Your task to perform on an android device: choose inbox layout in the gmail app Image 0: 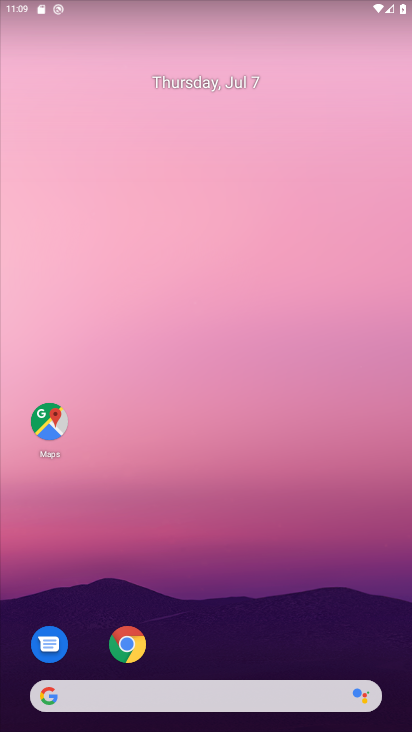
Step 0: click (185, 659)
Your task to perform on an android device: choose inbox layout in the gmail app Image 1: 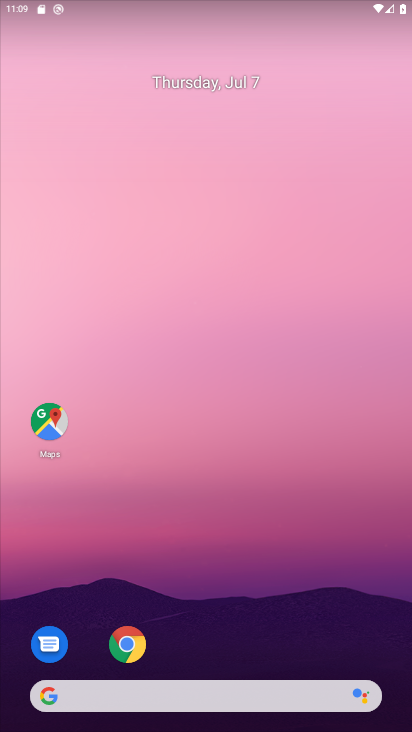
Step 1: click (127, 188)
Your task to perform on an android device: choose inbox layout in the gmail app Image 2: 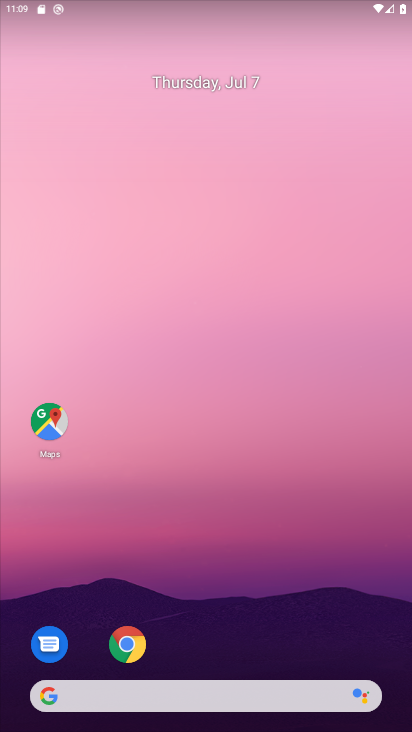
Step 2: drag from (245, 727) to (238, 174)
Your task to perform on an android device: choose inbox layout in the gmail app Image 3: 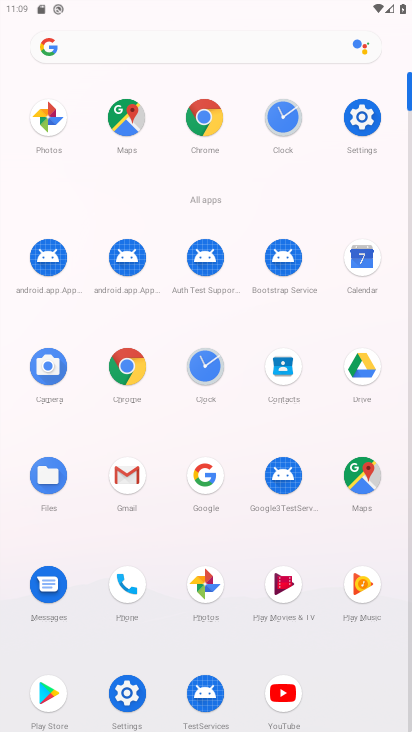
Step 3: click (132, 474)
Your task to perform on an android device: choose inbox layout in the gmail app Image 4: 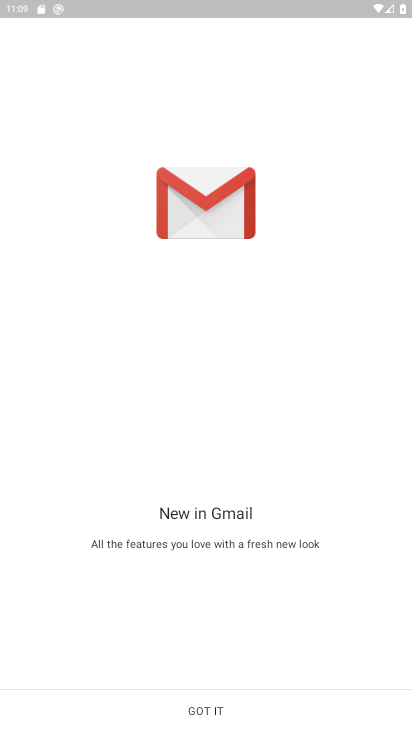
Step 4: click (212, 702)
Your task to perform on an android device: choose inbox layout in the gmail app Image 5: 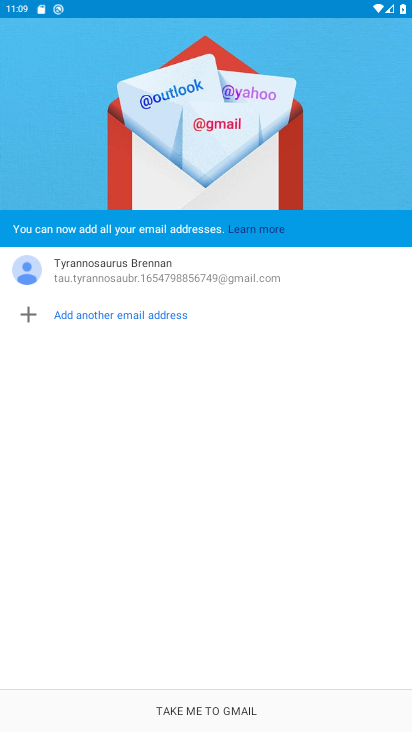
Step 5: click (210, 707)
Your task to perform on an android device: choose inbox layout in the gmail app Image 6: 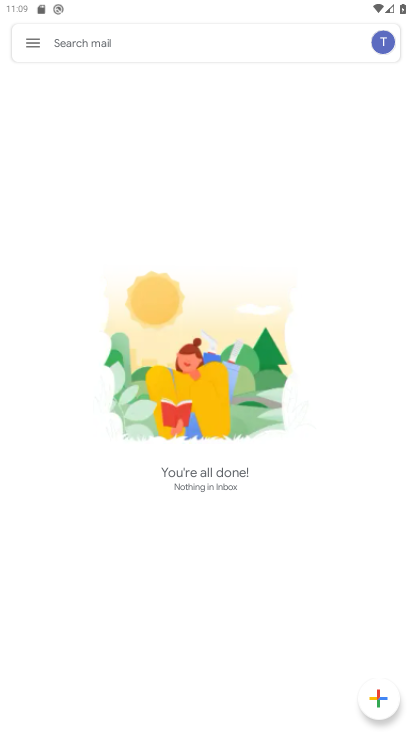
Step 6: click (31, 38)
Your task to perform on an android device: choose inbox layout in the gmail app Image 7: 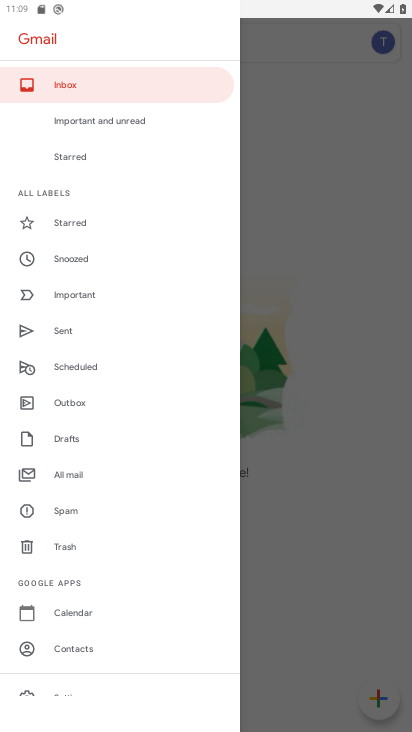
Step 7: drag from (94, 653) to (93, 412)
Your task to perform on an android device: choose inbox layout in the gmail app Image 8: 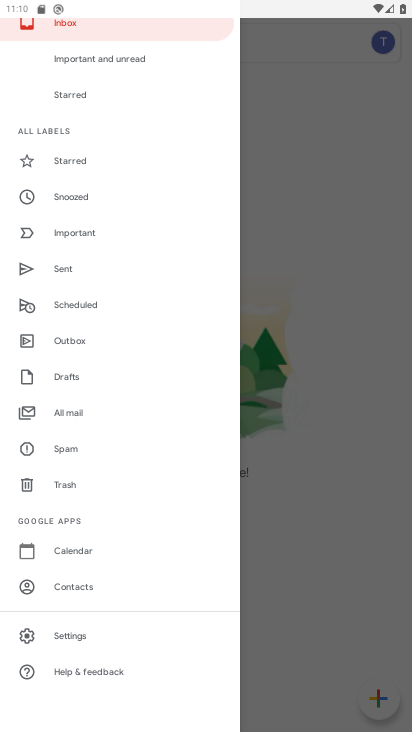
Step 8: click (70, 633)
Your task to perform on an android device: choose inbox layout in the gmail app Image 9: 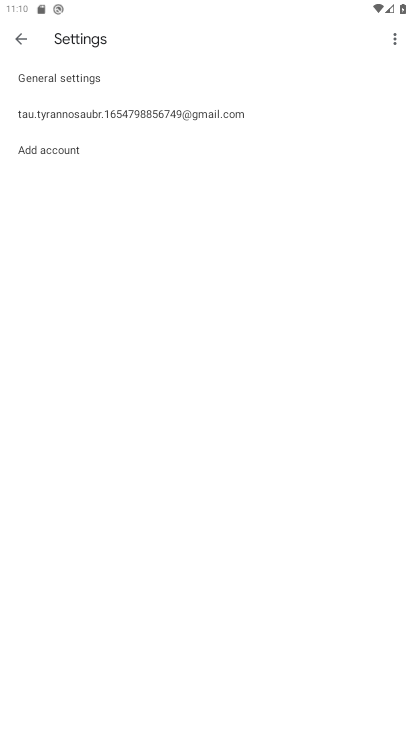
Step 9: click (131, 113)
Your task to perform on an android device: choose inbox layout in the gmail app Image 10: 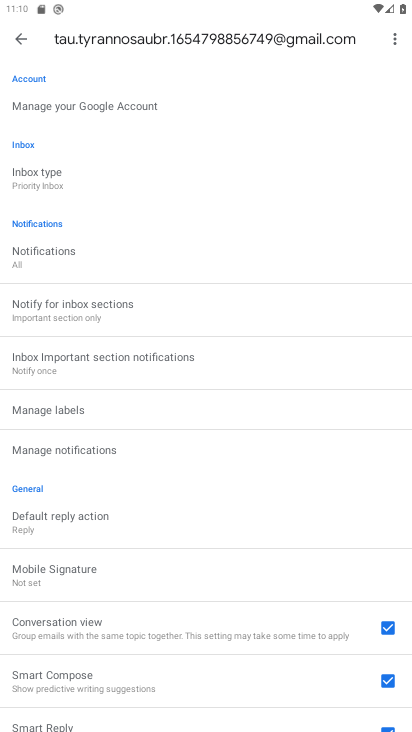
Step 10: click (43, 180)
Your task to perform on an android device: choose inbox layout in the gmail app Image 11: 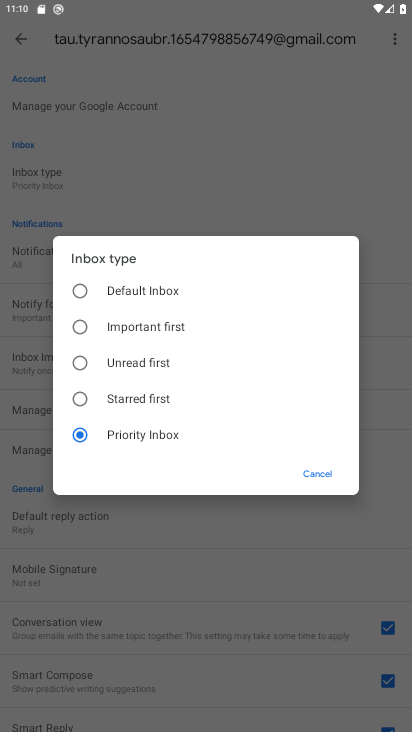
Step 11: click (75, 296)
Your task to perform on an android device: choose inbox layout in the gmail app Image 12: 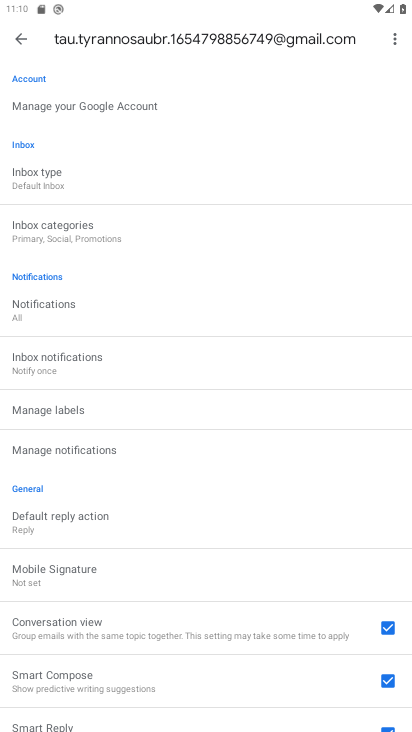
Step 12: task complete